Your task to perform on an android device: read, delete, or share a saved page in the chrome app Image 0: 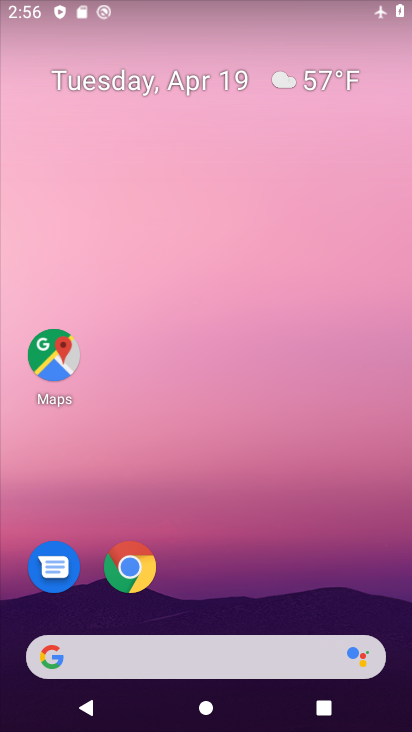
Step 0: drag from (375, 586) to (345, 112)
Your task to perform on an android device: read, delete, or share a saved page in the chrome app Image 1: 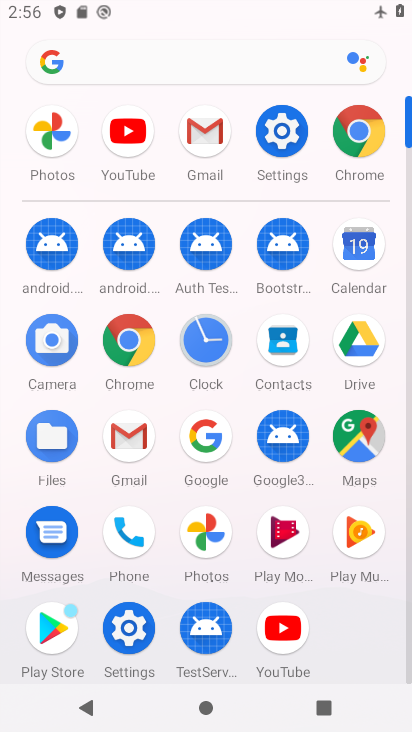
Step 1: click (123, 326)
Your task to perform on an android device: read, delete, or share a saved page in the chrome app Image 2: 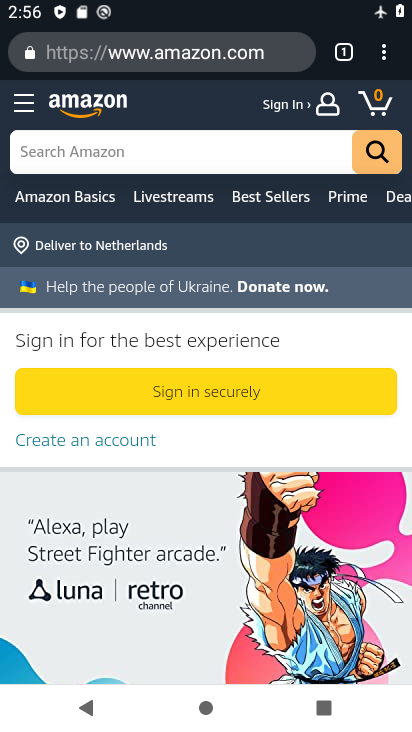
Step 2: click (381, 48)
Your task to perform on an android device: read, delete, or share a saved page in the chrome app Image 3: 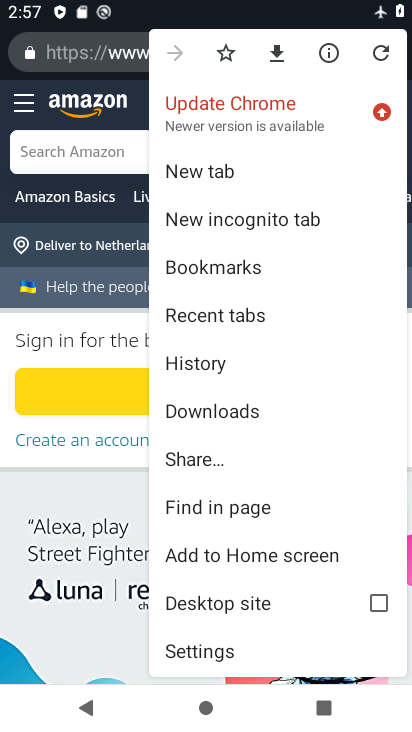
Step 3: click (243, 412)
Your task to perform on an android device: read, delete, or share a saved page in the chrome app Image 4: 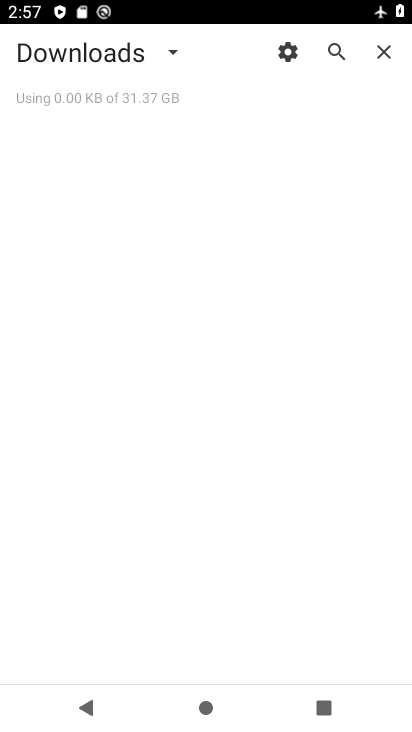
Step 4: click (173, 48)
Your task to perform on an android device: read, delete, or share a saved page in the chrome app Image 5: 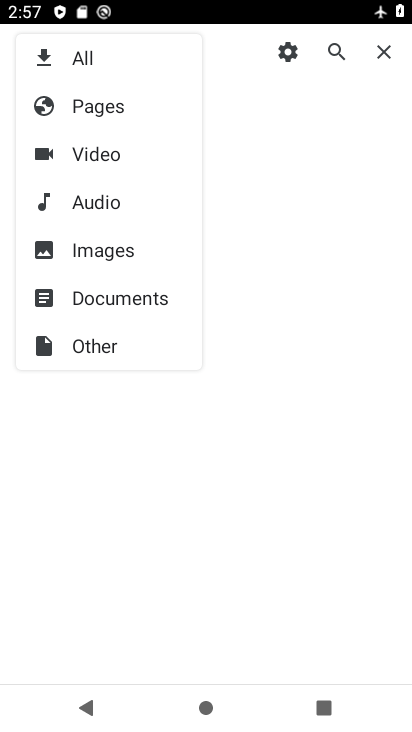
Step 5: click (107, 103)
Your task to perform on an android device: read, delete, or share a saved page in the chrome app Image 6: 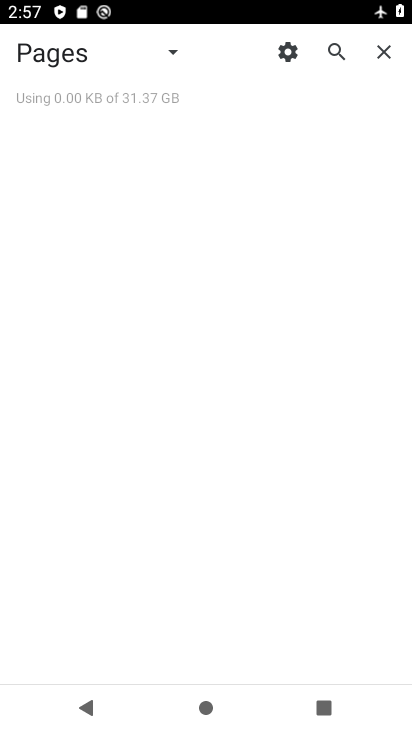
Step 6: task complete